Your task to perform on an android device: Add razer nari to the cart on costco Image 0: 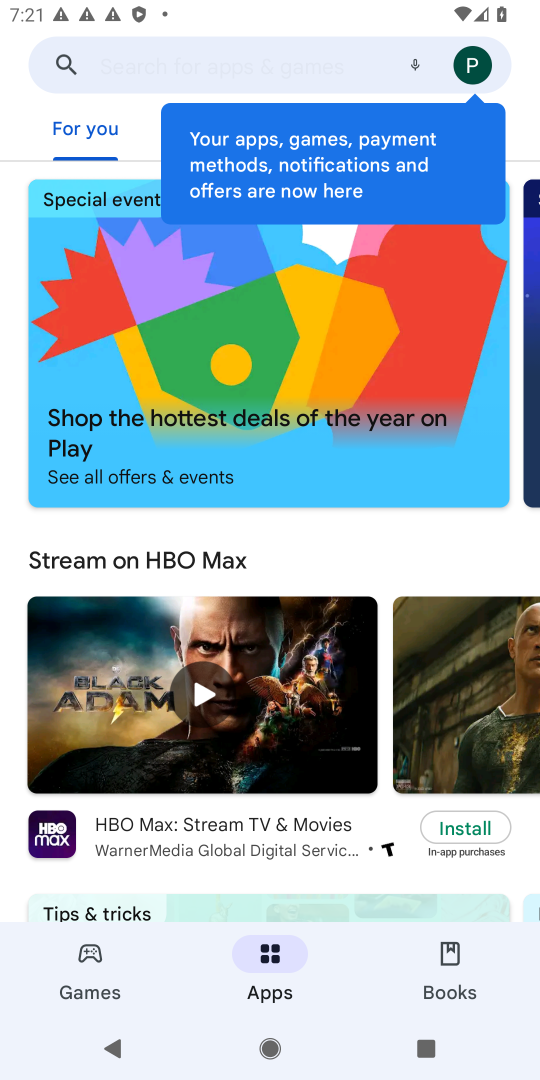
Step 0: press home button
Your task to perform on an android device: Add razer nari to the cart on costco Image 1: 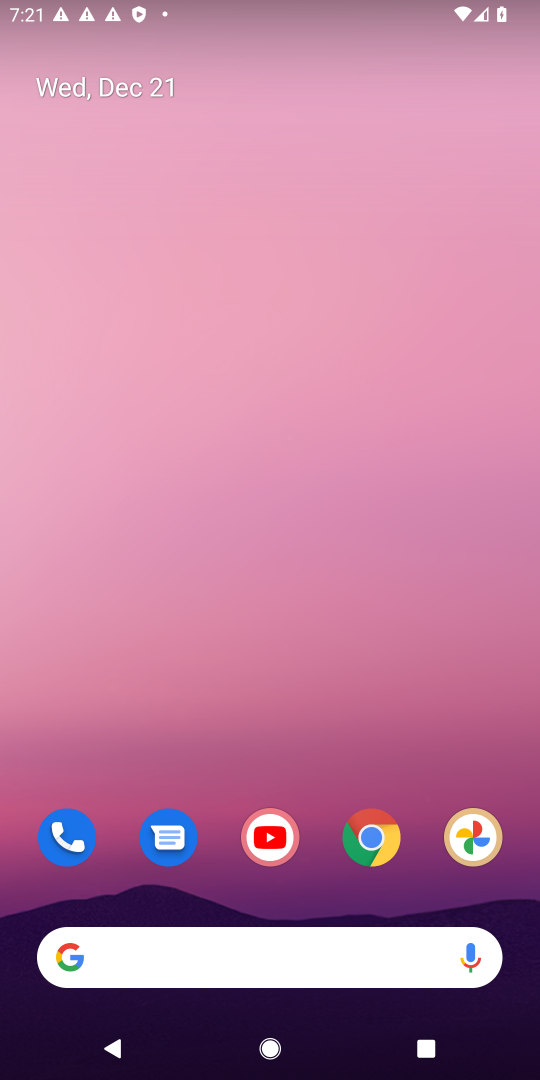
Step 1: drag from (259, 810) to (243, 348)
Your task to perform on an android device: Add razer nari to the cart on costco Image 2: 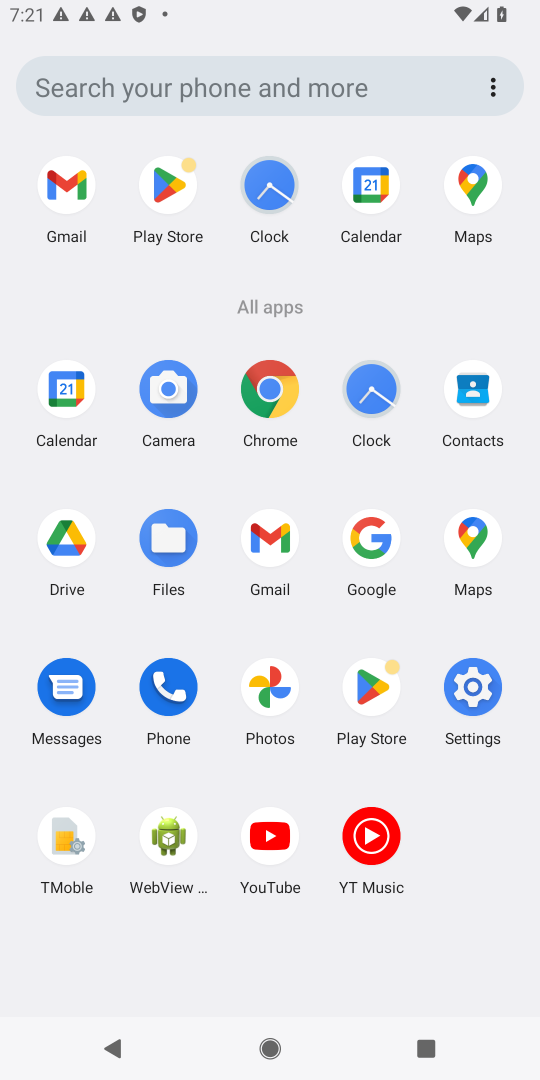
Step 2: click (357, 534)
Your task to perform on an android device: Add razer nari to the cart on costco Image 3: 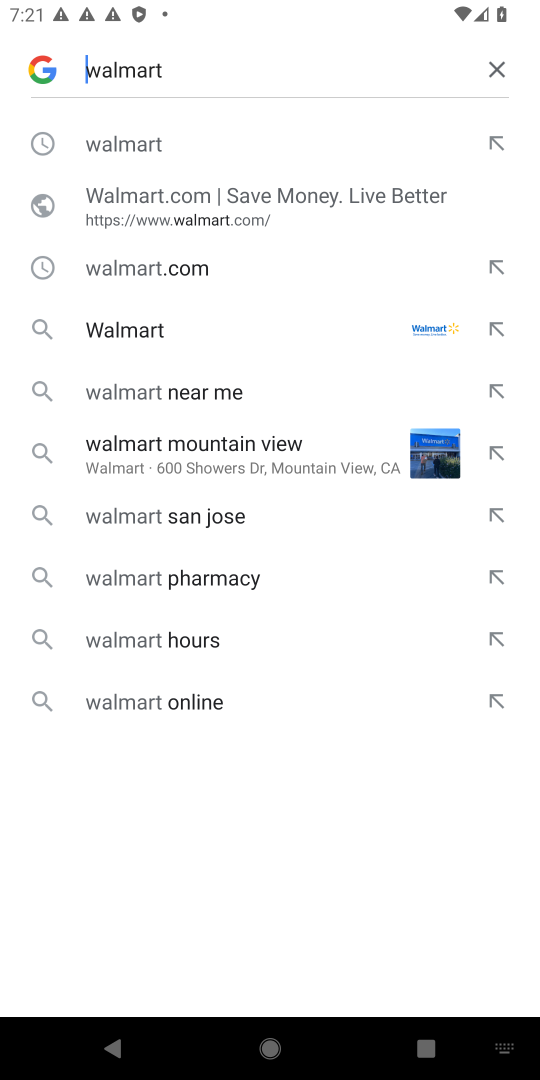
Step 3: click (219, 86)
Your task to perform on an android device: Add razer nari to the cart on costco Image 4: 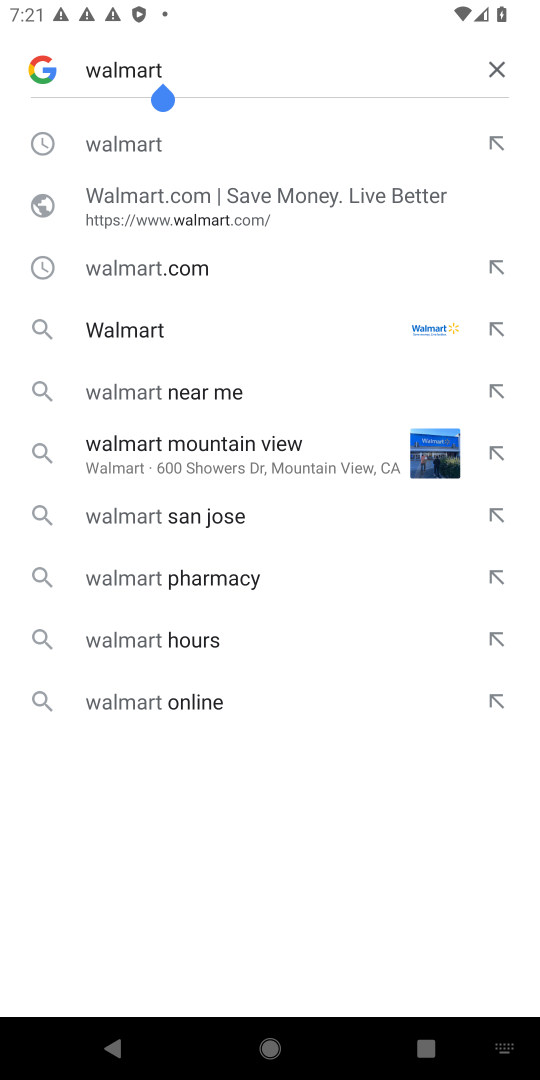
Step 4: click (497, 73)
Your task to perform on an android device: Add razer nari to the cart on costco Image 5: 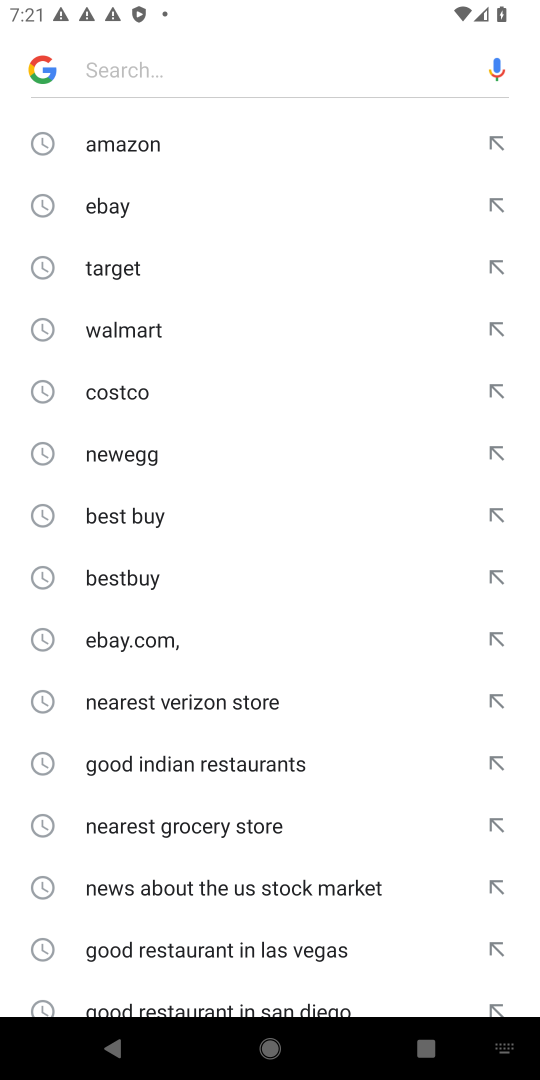
Step 5: click (93, 401)
Your task to perform on an android device: Add razer nari to the cart on costco Image 6: 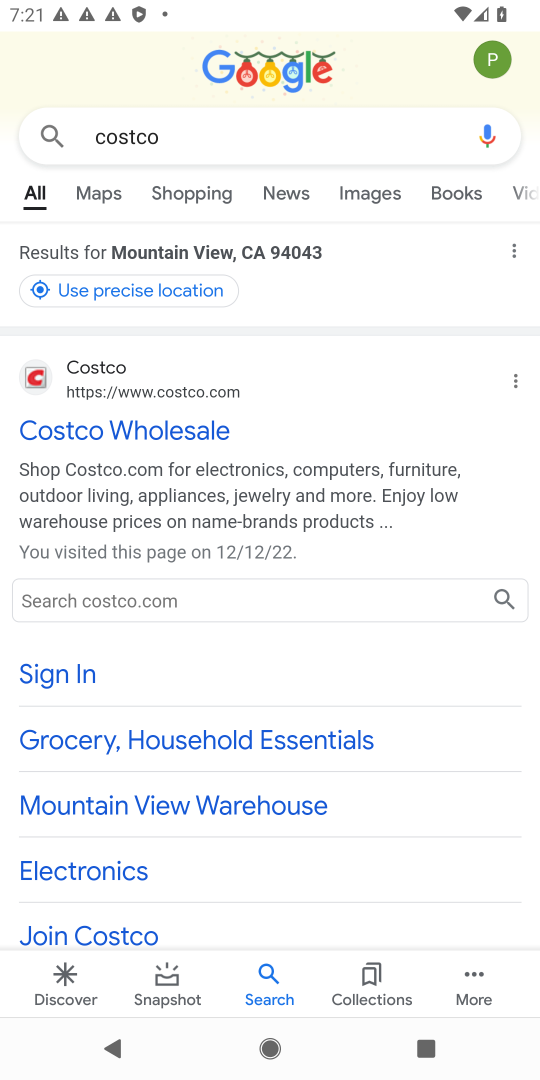
Step 6: click (135, 429)
Your task to perform on an android device: Add razer nari to the cart on costco Image 7: 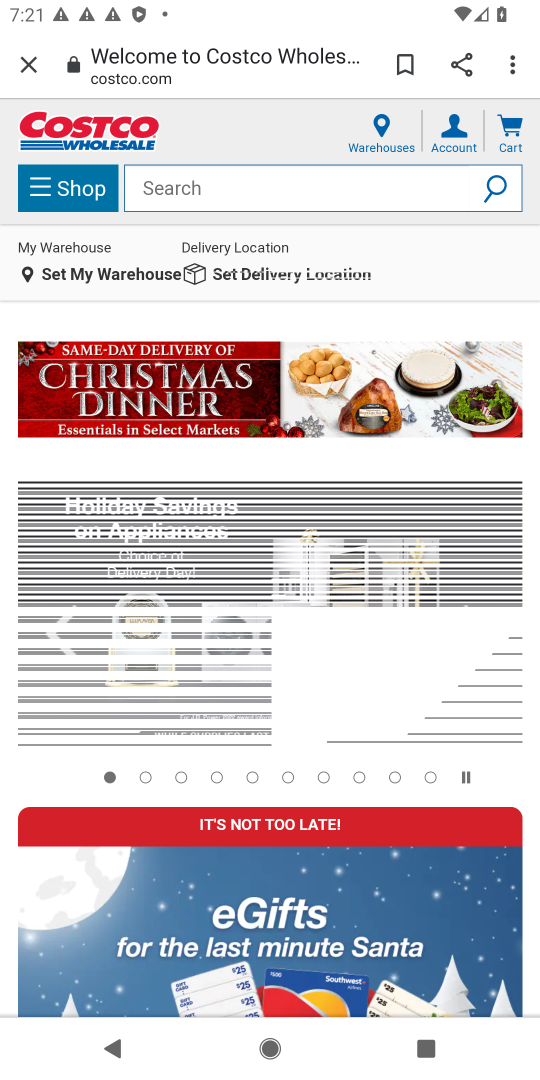
Step 7: click (135, 185)
Your task to perform on an android device: Add razer nari to the cart on costco Image 8: 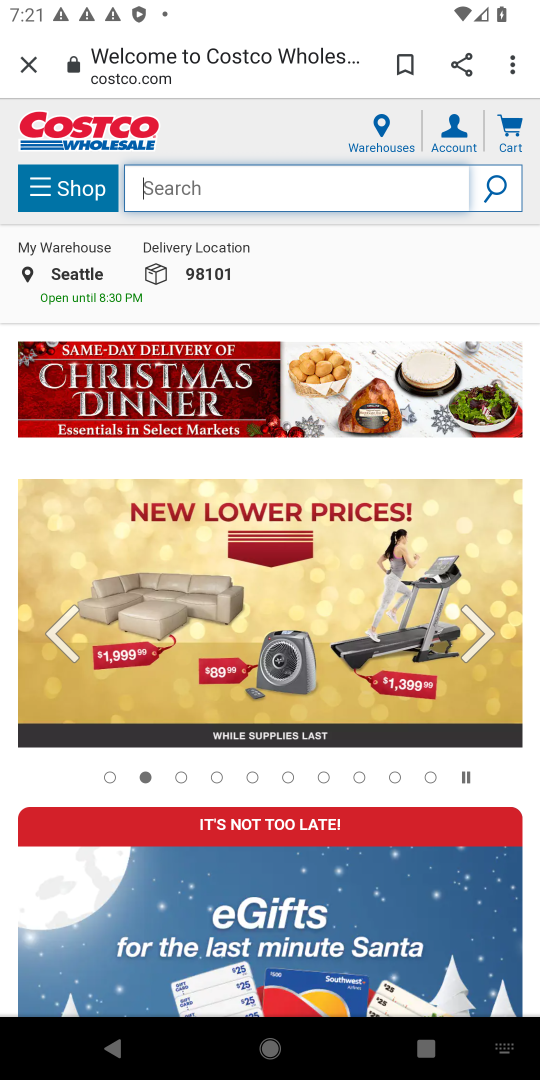
Step 8: type "razer nari"
Your task to perform on an android device: Add razer nari to the cart on costco Image 9: 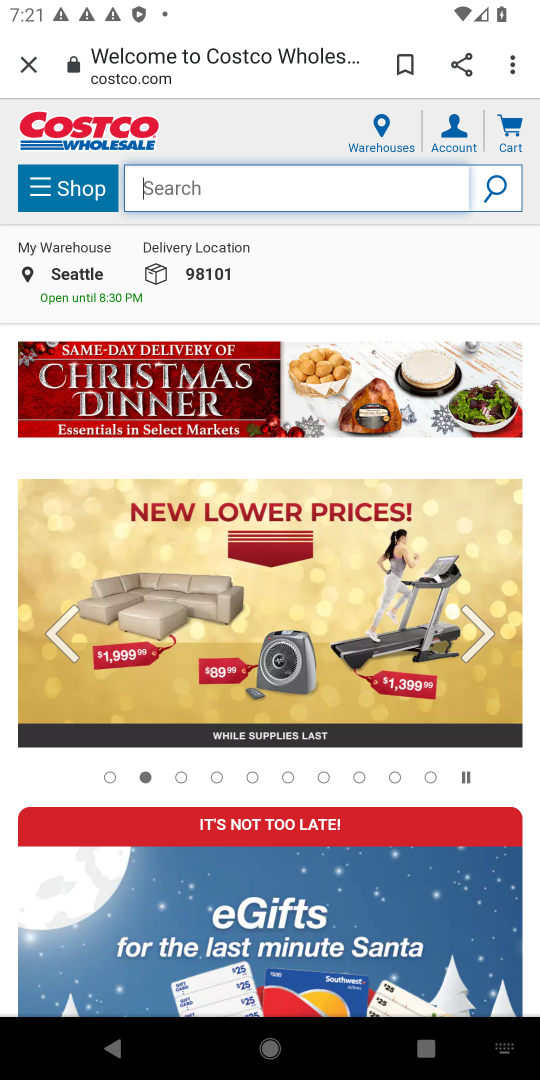
Step 9: click (492, 188)
Your task to perform on an android device: Add razer nari to the cart on costco Image 10: 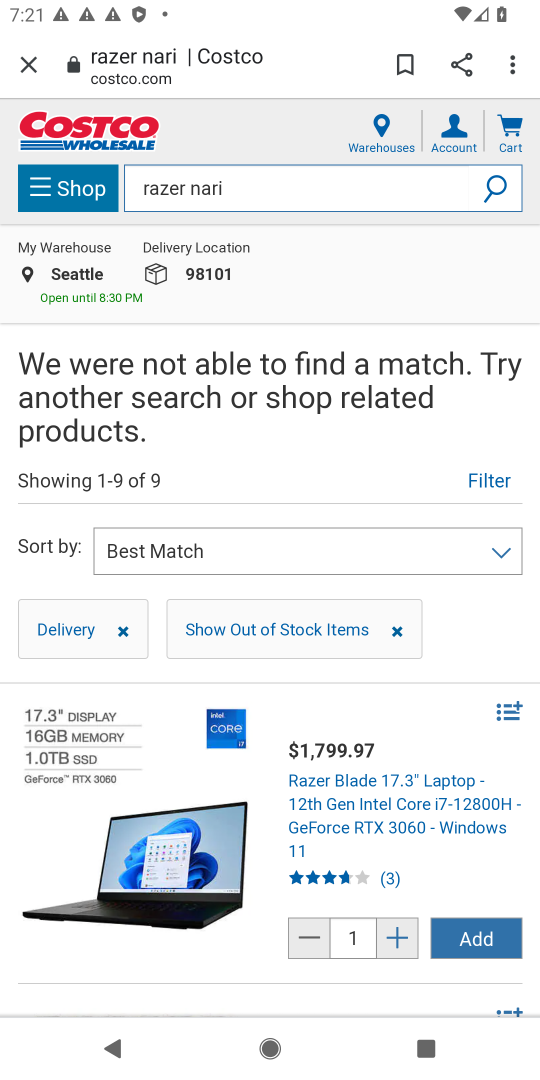
Step 10: click (476, 933)
Your task to perform on an android device: Add razer nari to the cart on costco Image 11: 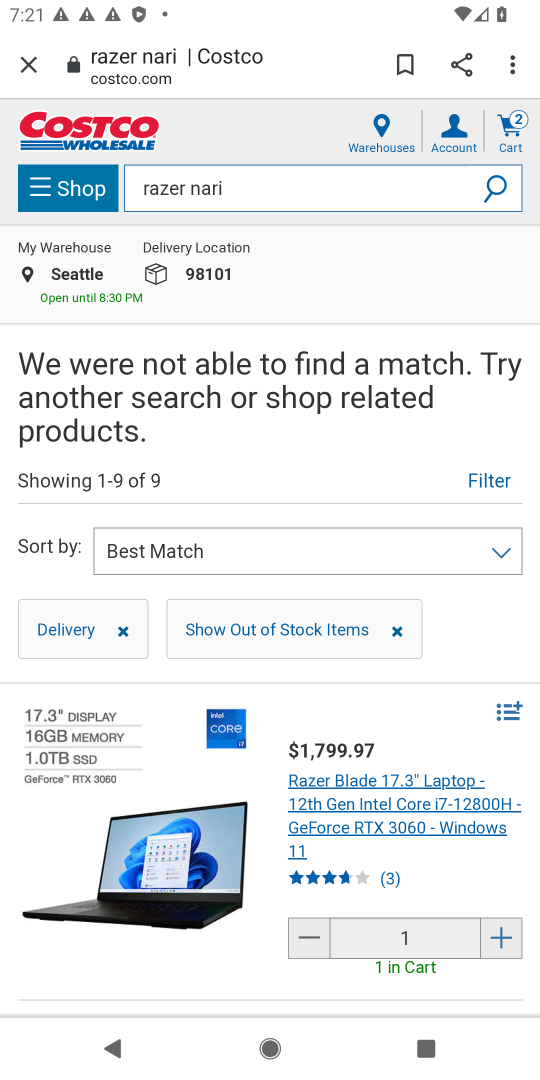
Step 11: task complete